Your task to perform on an android device: Is it going to rain today? Image 0: 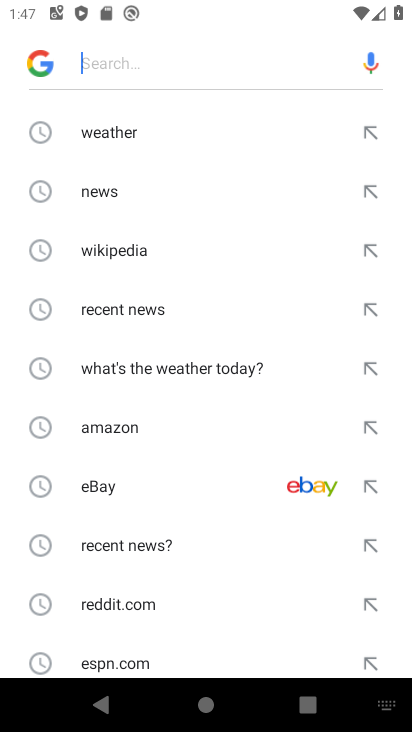
Step 0: press home button
Your task to perform on an android device: Is it going to rain today? Image 1: 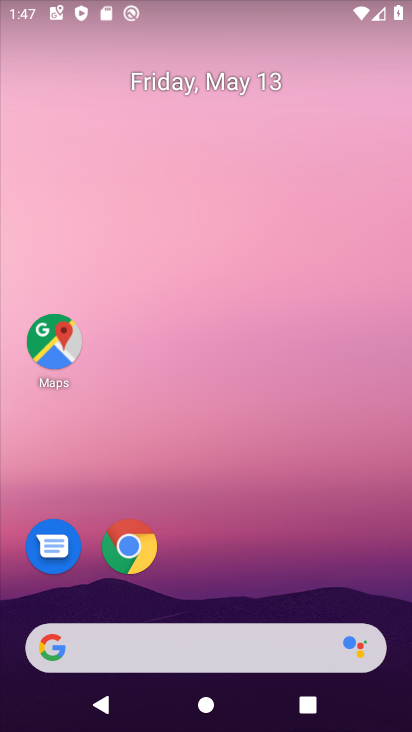
Step 1: click (119, 543)
Your task to perform on an android device: Is it going to rain today? Image 2: 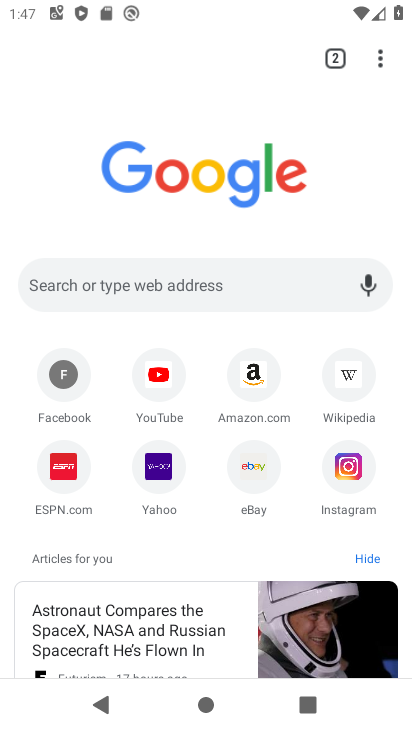
Step 2: click (176, 275)
Your task to perform on an android device: Is it going to rain today? Image 3: 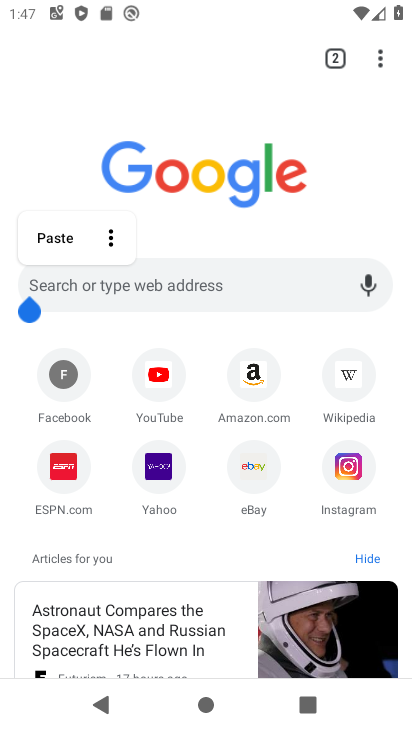
Step 3: click (205, 290)
Your task to perform on an android device: Is it going to rain today? Image 4: 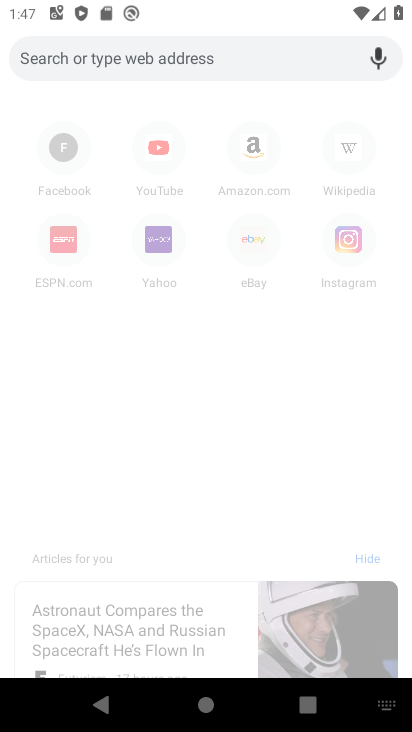
Step 4: type "weather"
Your task to perform on an android device: Is it going to rain today? Image 5: 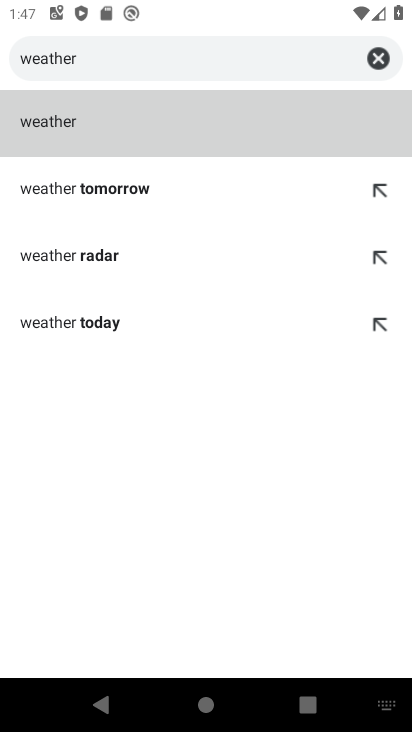
Step 5: click (53, 125)
Your task to perform on an android device: Is it going to rain today? Image 6: 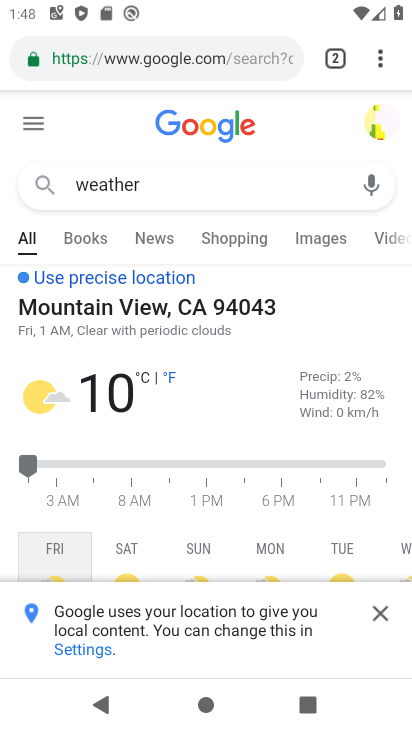
Step 6: task complete